Your task to perform on an android device: open sync settings in chrome Image 0: 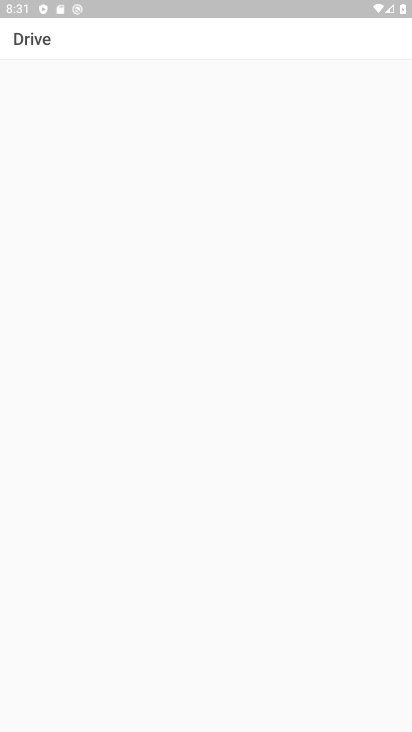
Step 0: press home button
Your task to perform on an android device: open sync settings in chrome Image 1: 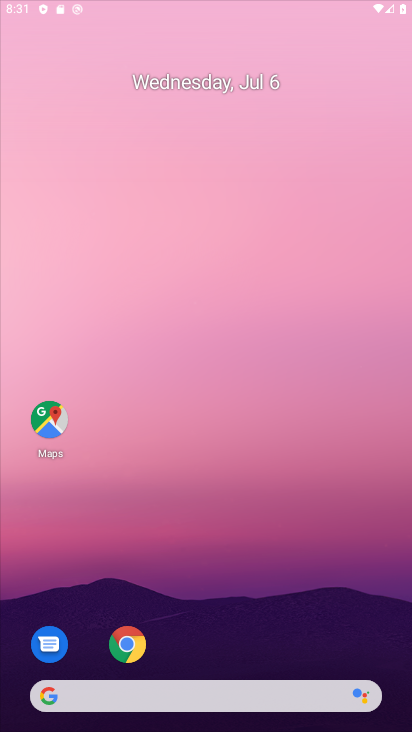
Step 1: drag from (209, 653) to (177, 98)
Your task to perform on an android device: open sync settings in chrome Image 2: 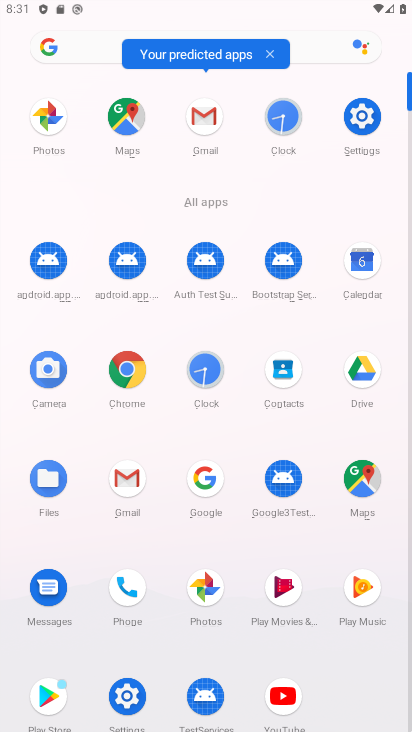
Step 2: click (129, 378)
Your task to perform on an android device: open sync settings in chrome Image 3: 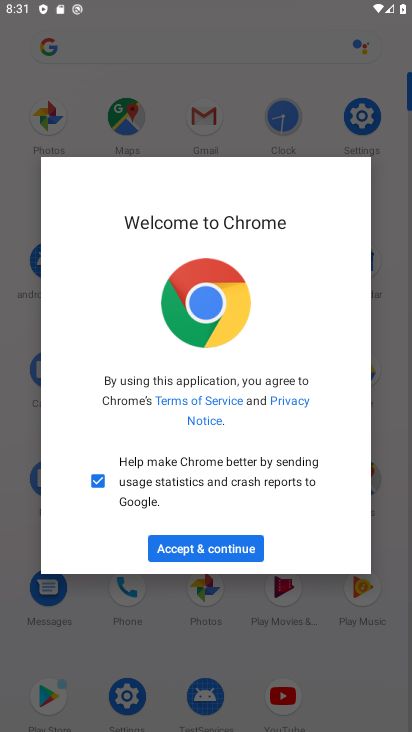
Step 3: click (214, 548)
Your task to perform on an android device: open sync settings in chrome Image 4: 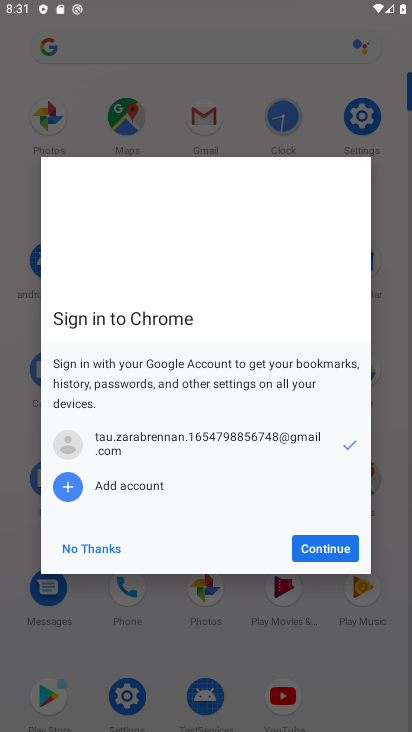
Step 4: click (303, 556)
Your task to perform on an android device: open sync settings in chrome Image 5: 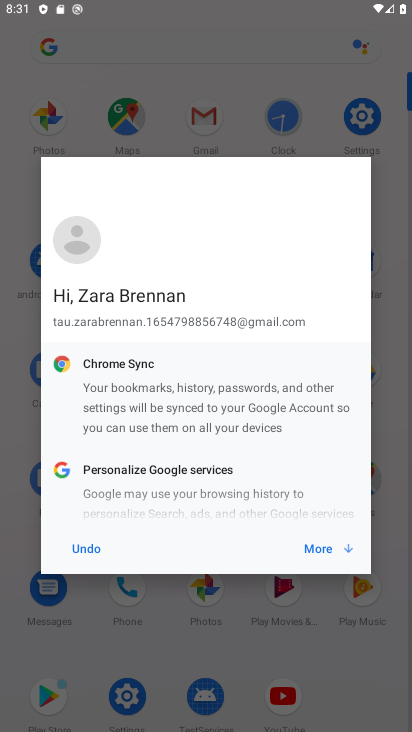
Step 5: click (321, 553)
Your task to perform on an android device: open sync settings in chrome Image 6: 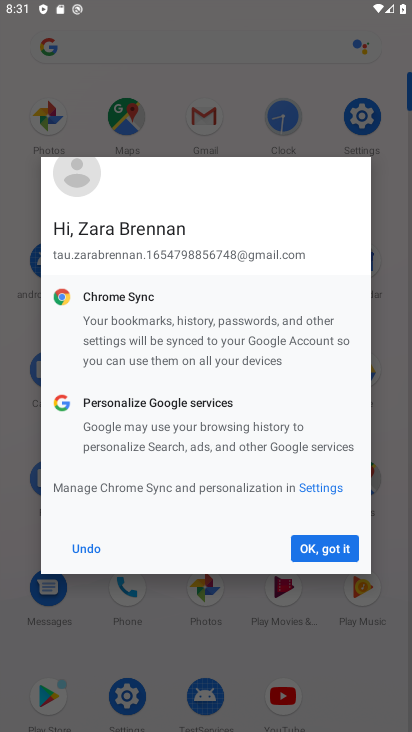
Step 6: click (321, 553)
Your task to perform on an android device: open sync settings in chrome Image 7: 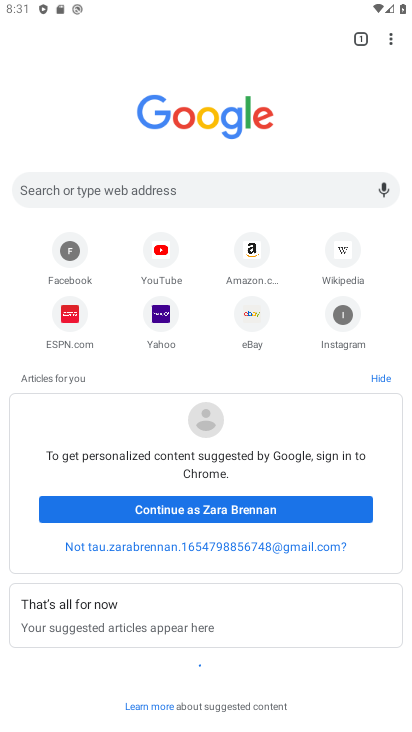
Step 7: click (389, 44)
Your task to perform on an android device: open sync settings in chrome Image 8: 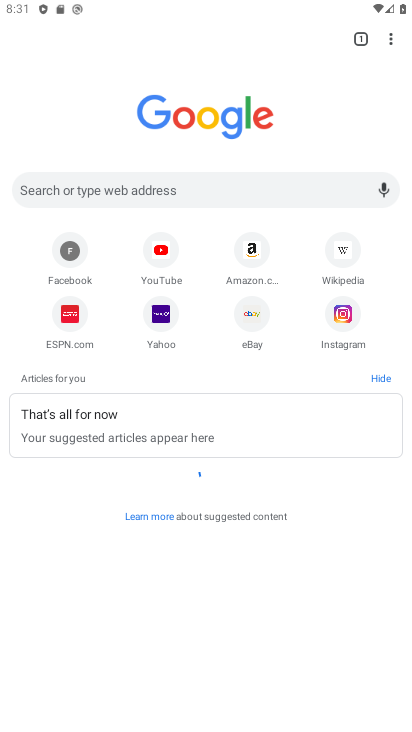
Step 8: drag from (388, 44) to (249, 329)
Your task to perform on an android device: open sync settings in chrome Image 9: 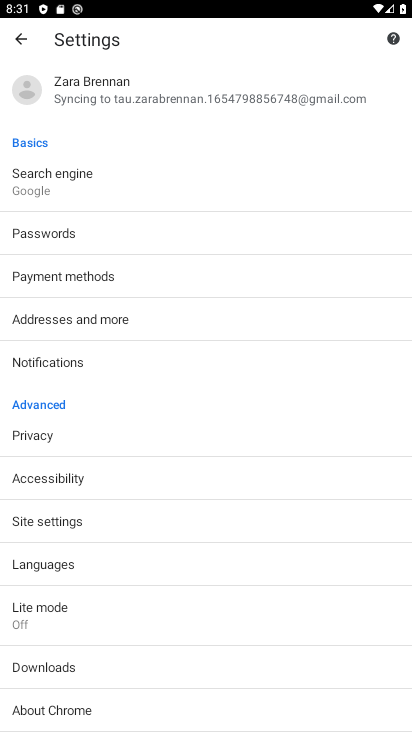
Step 9: click (75, 97)
Your task to perform on an android device: open sync settings in chrome Image 10: 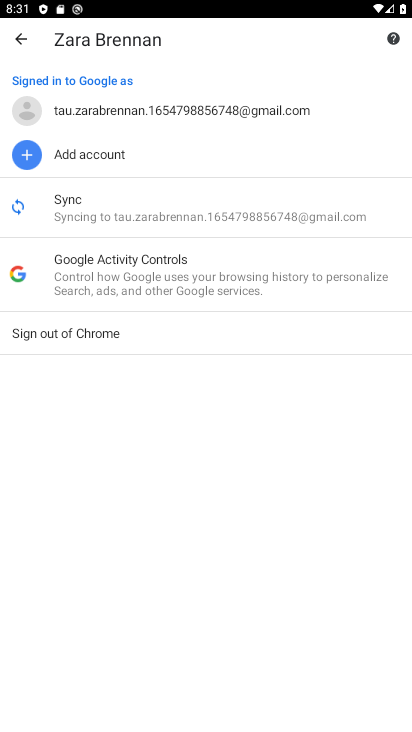
Step 10: click (132, 204)
Your task to perform on an android device: open sync settings in chrome Image 11: 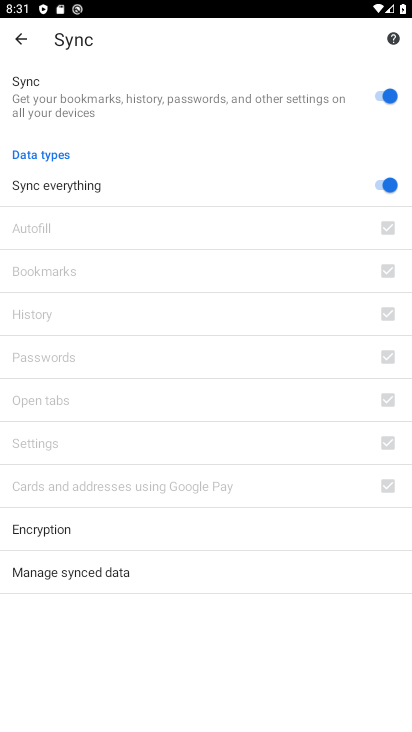
Step 11: task complete